Your task to perform on an android device: move an email to a new category in the gmail app Image 0: 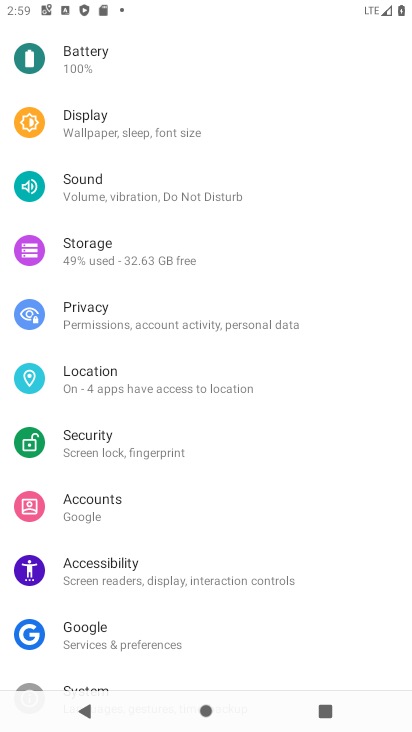
Step 0: press home button
Your task to perform on an android device: move an email to a new category in the gmail app Image 1: 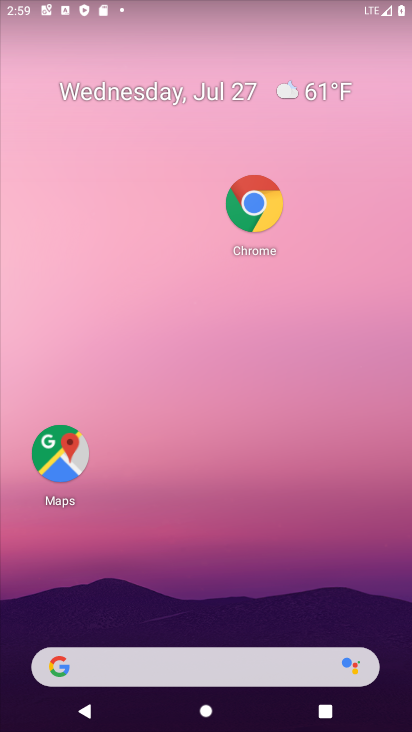
Step 1: drag from (228, 598) to (232, 125)
Your task to perform on an android device: move an email to a new category in the gmail app Image 2: 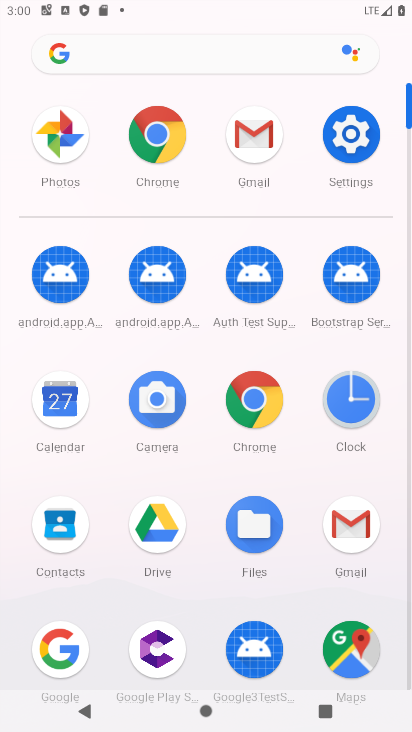
Step 2: click (362, 512)
Your task to perform on an android device: move an email to a new category in the gmail app Image 3: 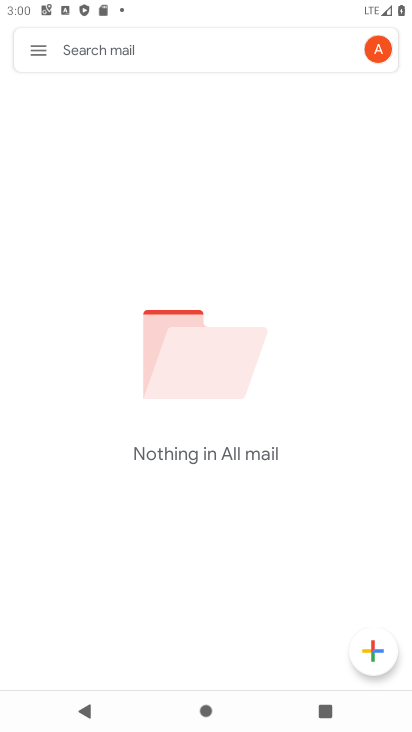
Step 3: click (46, 59)
Your task to perform on an android device: move an email to a new category in the gmail app Image 4: 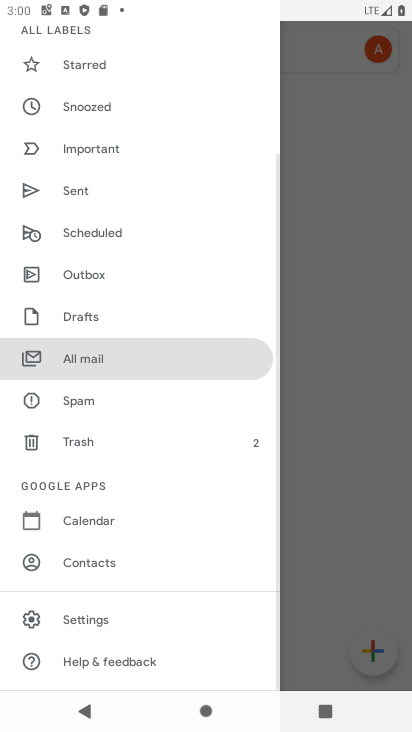
Step 4: click (91, 365)
Your task to perform on an android device: move an email to a new category in the gmail app Image 5: 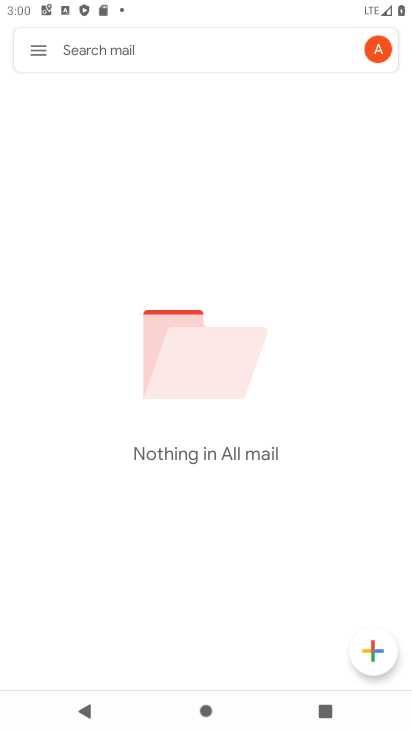
Step 5: task complete